Your task to perform on an android device: Open Android settings Image 0: 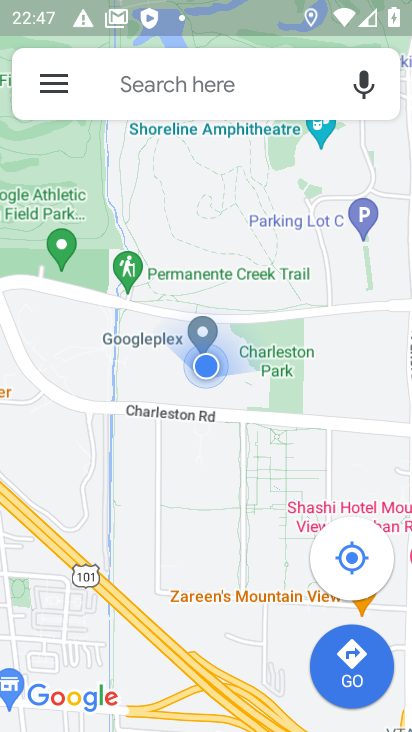
Step 0: press back button
Your task to perform on an android device: Open Android settings Image 1: 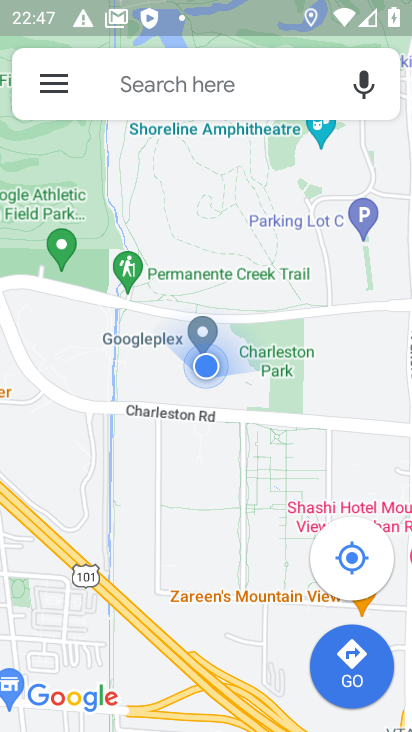
Step 1: press back button
Your task to perform on an android device: Open Android settings Image 2: 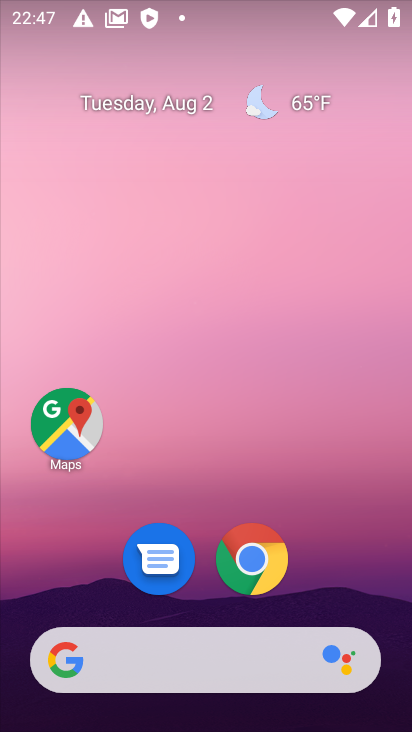
Step 2: drag from (128, 591) to (54, 124)
Your task to perform on an android device: Open Android settings Image 3: 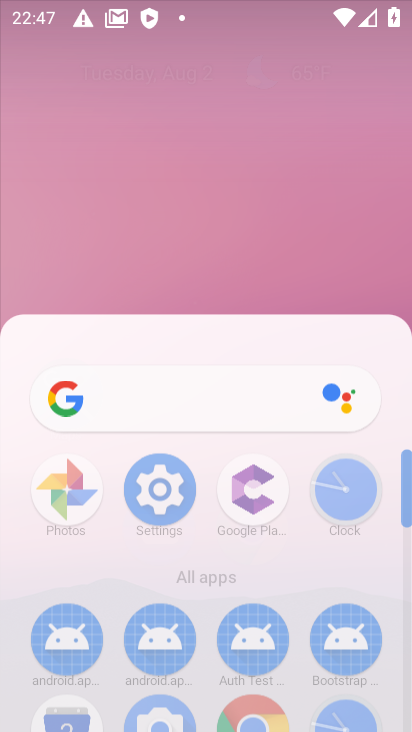
Step 3: drag from (133, 521) to (99, 186)
Your task to perform on an android device: Open Android settings Image 4: 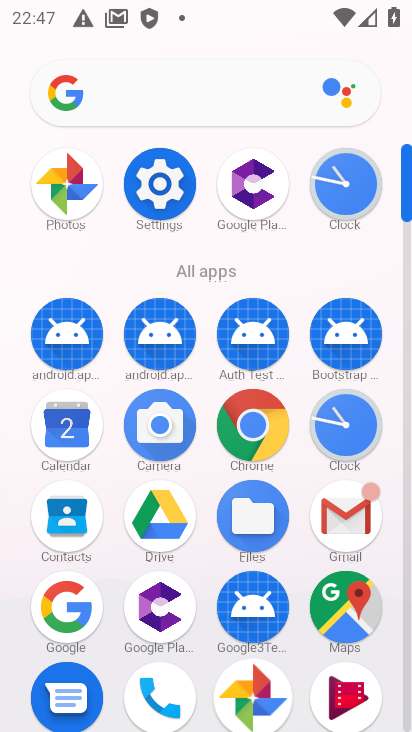
Step 4: click (157, 186)
Your task to perform on an android device: Open Android settings Image 5: 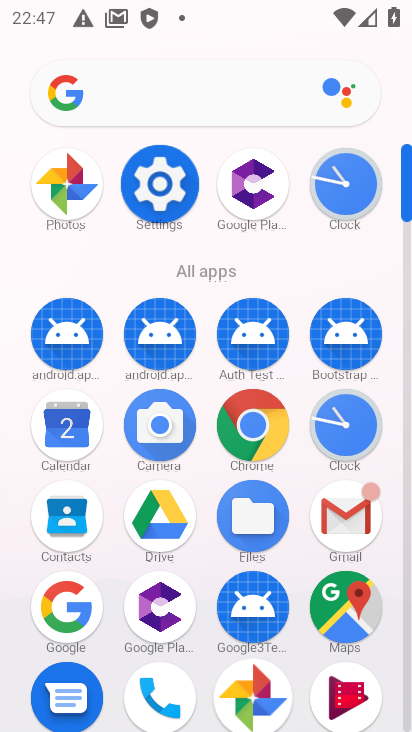
Step 5: click (157, 187)
Your task to perform on an android device: Open Android settings Image 6: 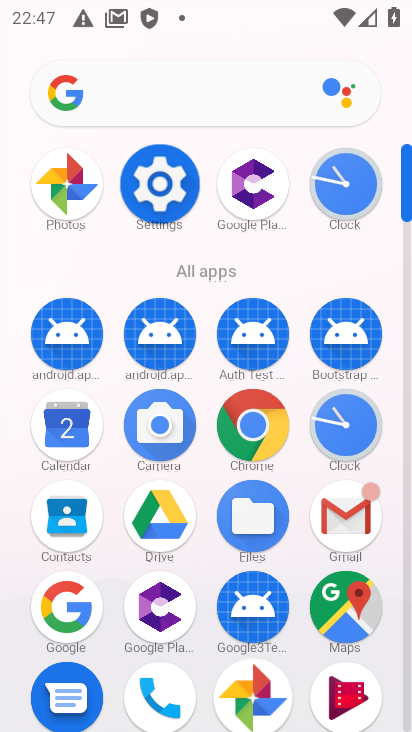
Step 6: click (156, 186)
Your task to perform on an android device: Open Android settings Image 7: 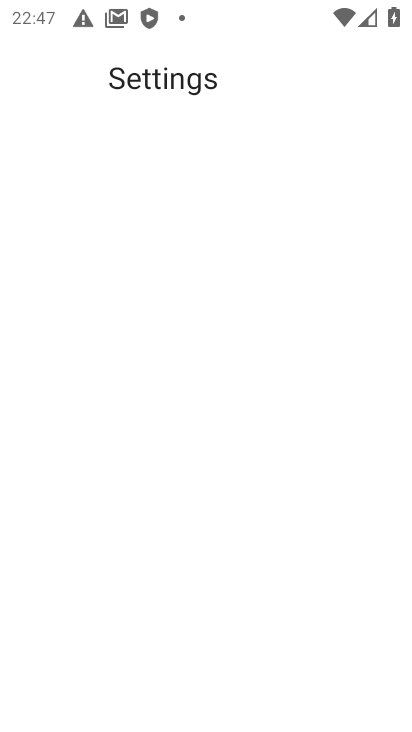
Step 7: click (156, 185)
Your task to perform on an android device: Open Android settings Image 8: 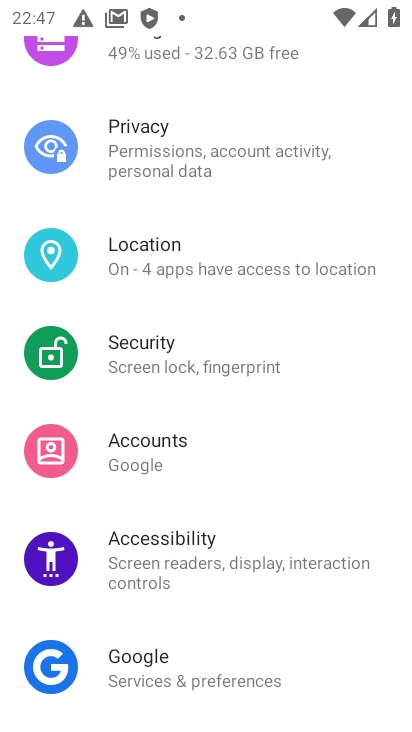
Step 8: drag from (145, 600) to (140, 159)
Your task to perform on an android device: Open Android settings Image 9: 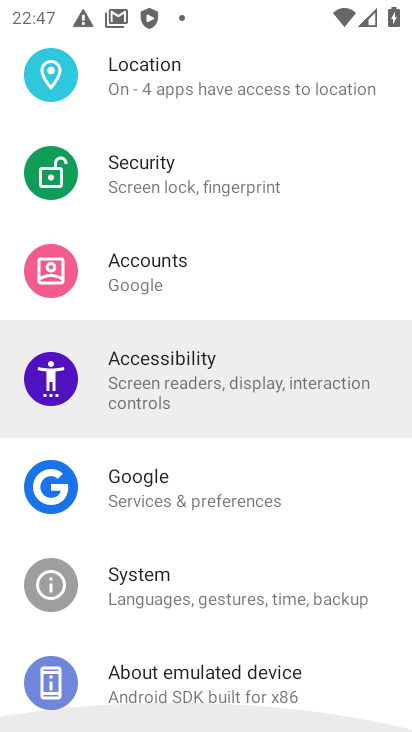
Step 9: drag from (194, 554) to (154, 178)
Your task to perform on an android device: Open Android settings Image 10: 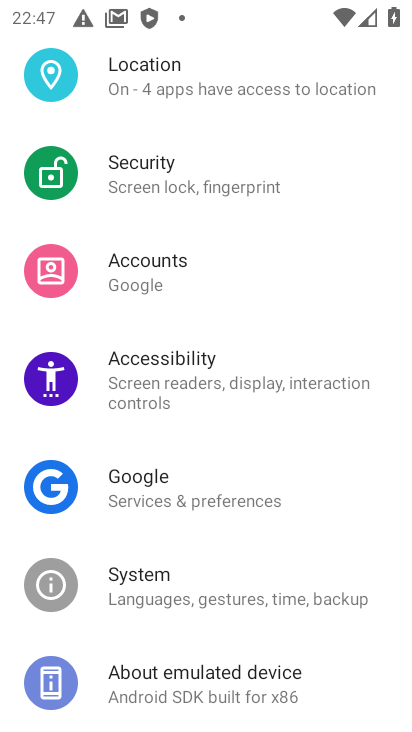
Step 10: click (184, 689)
Your task to perform on an android device: Open Android settings Image 11: 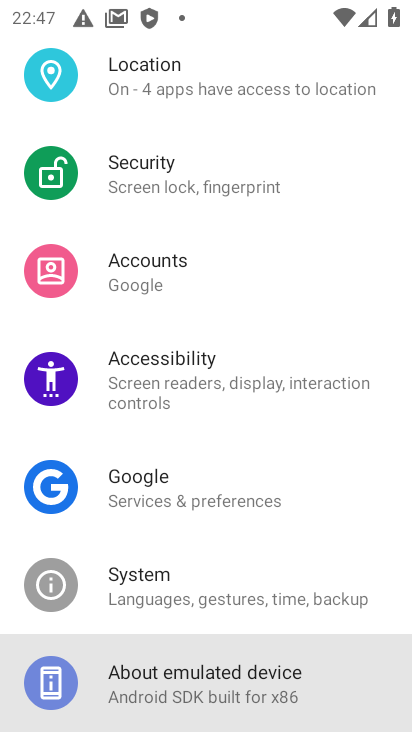
Step 11: click (183, 690)
Your task to perform on an android device: Open Android settings Image 12: 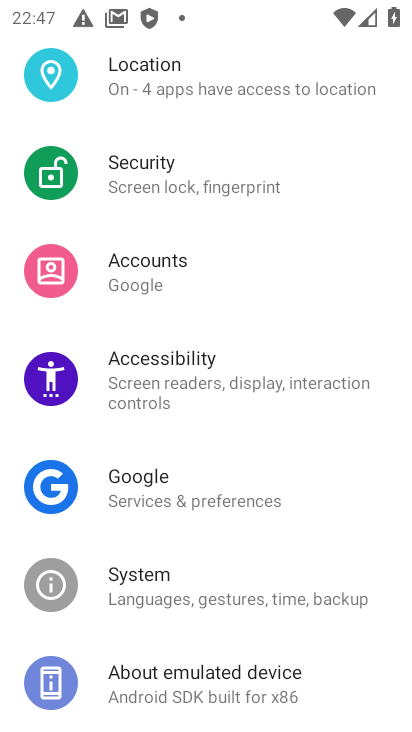
Step 12: click (183, 690)
Your task to perform on an android device: Open Android settings Image 13: 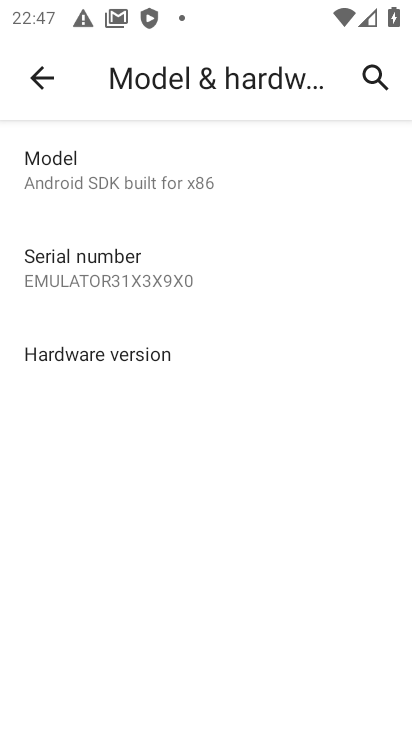
Step 13: task complete